Your task to perform on an android device: Turn on the flashlight Image 0: 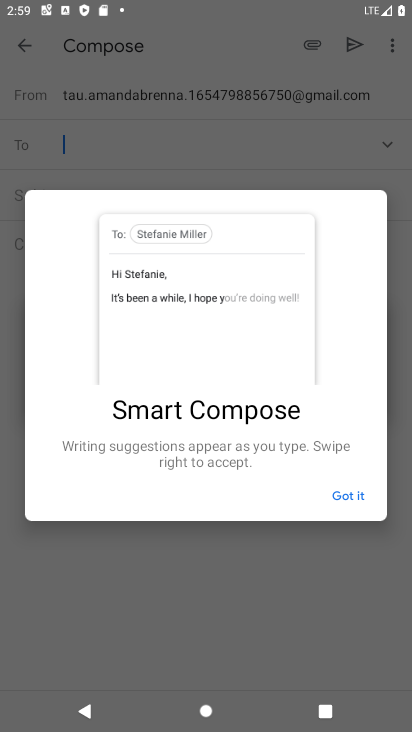
Step 0: press home button
Your task to perform on an android device: Turn on the flashlight Image 1: 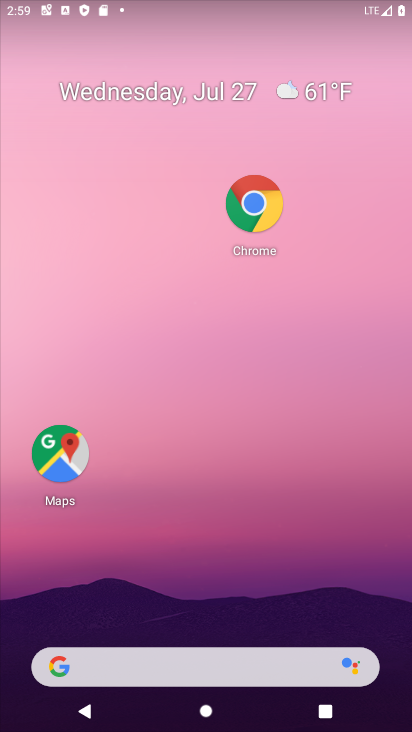
Step 1: task complete